Your task to perform on an android device: How big is a dinosaur? Image 0: 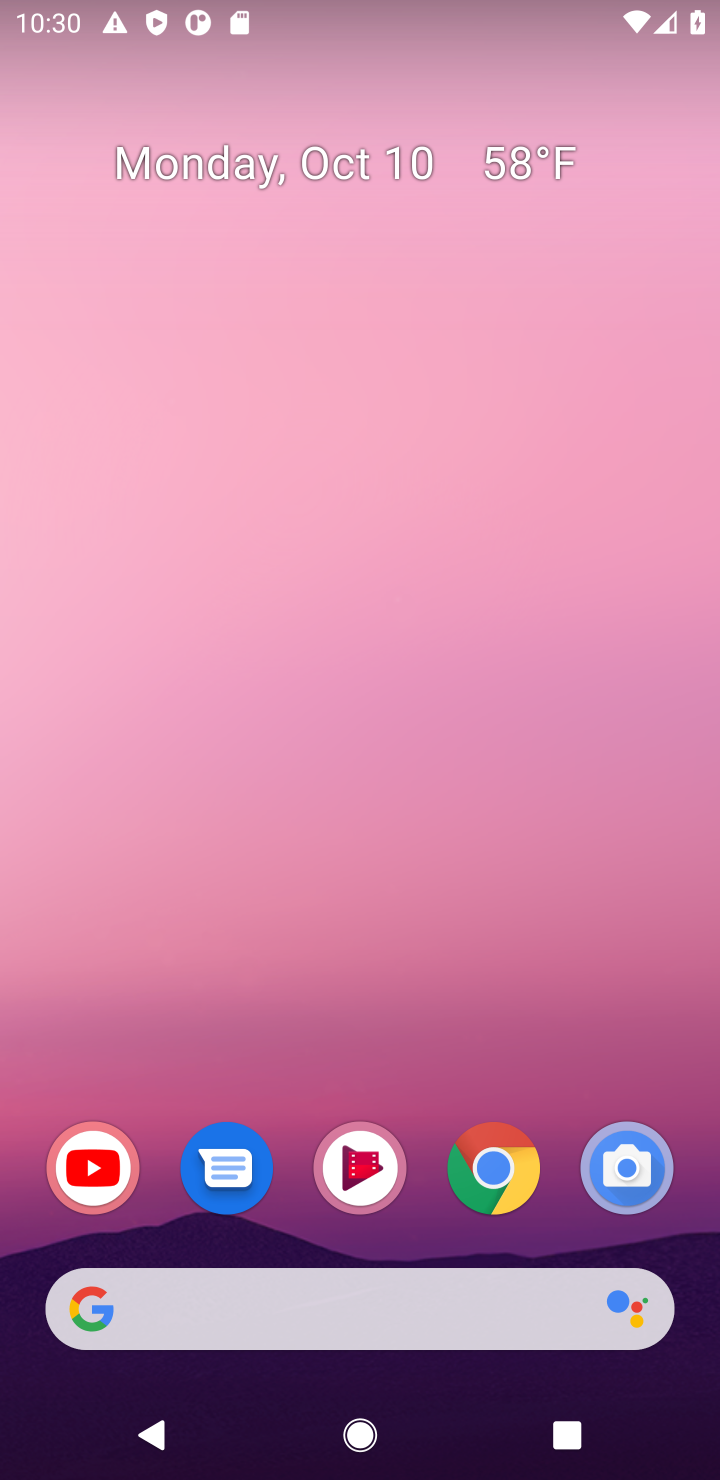
Step 0: click (450, 1300)
Your task to perform on an android device: How big is a dinosaur? Image 1: 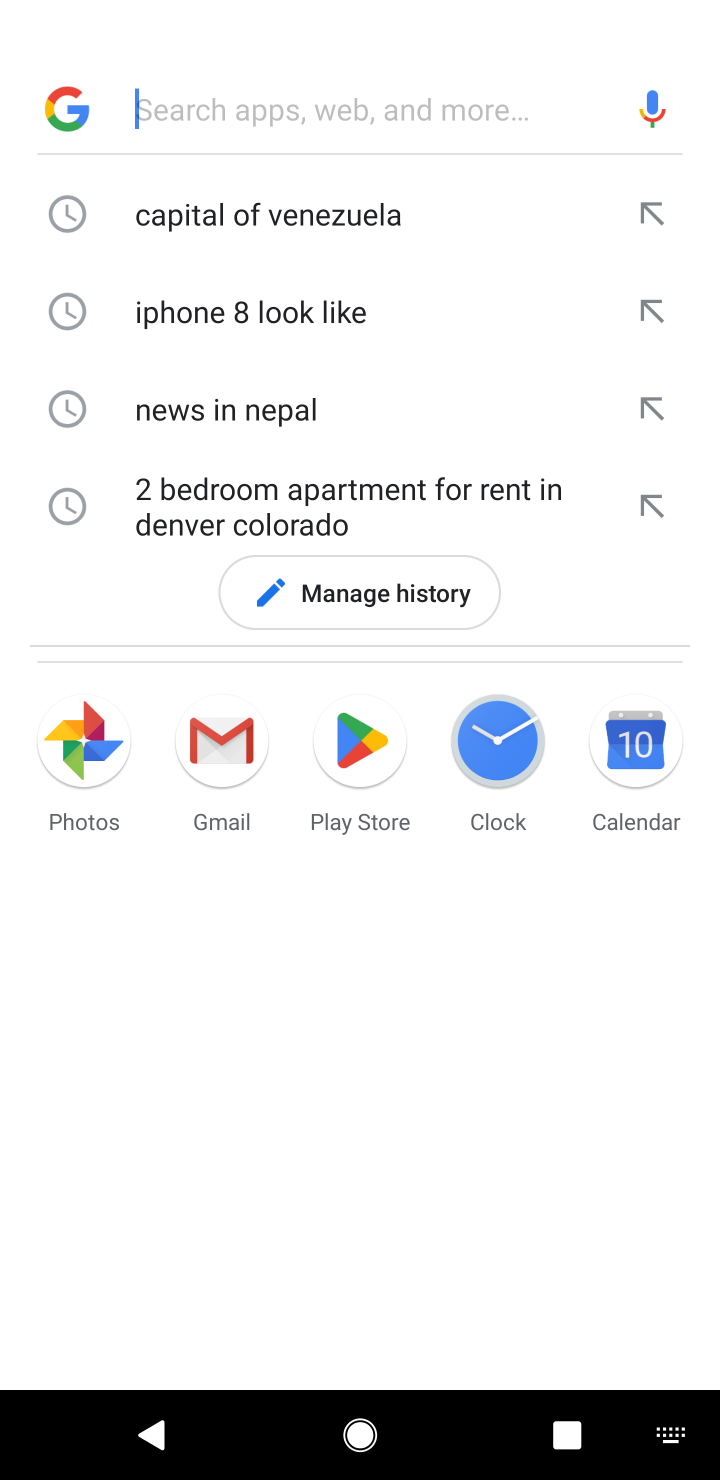
Step 1: type "How big is a dinosaur?"
Your task to perform on an android device: How big is a dinosaur? Image 2: 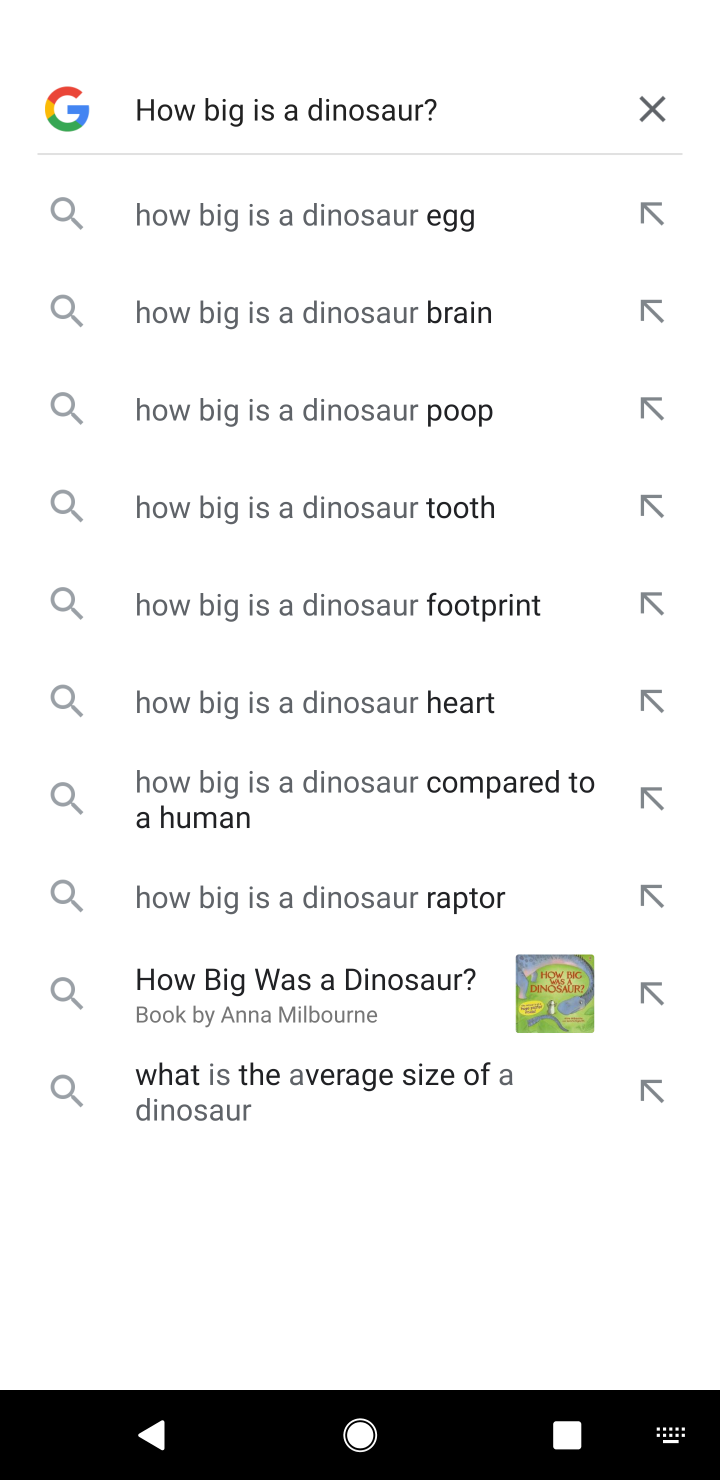
Step 2: type ""
Your task to perform on an android device: How big is a dinosaur? Image 3: 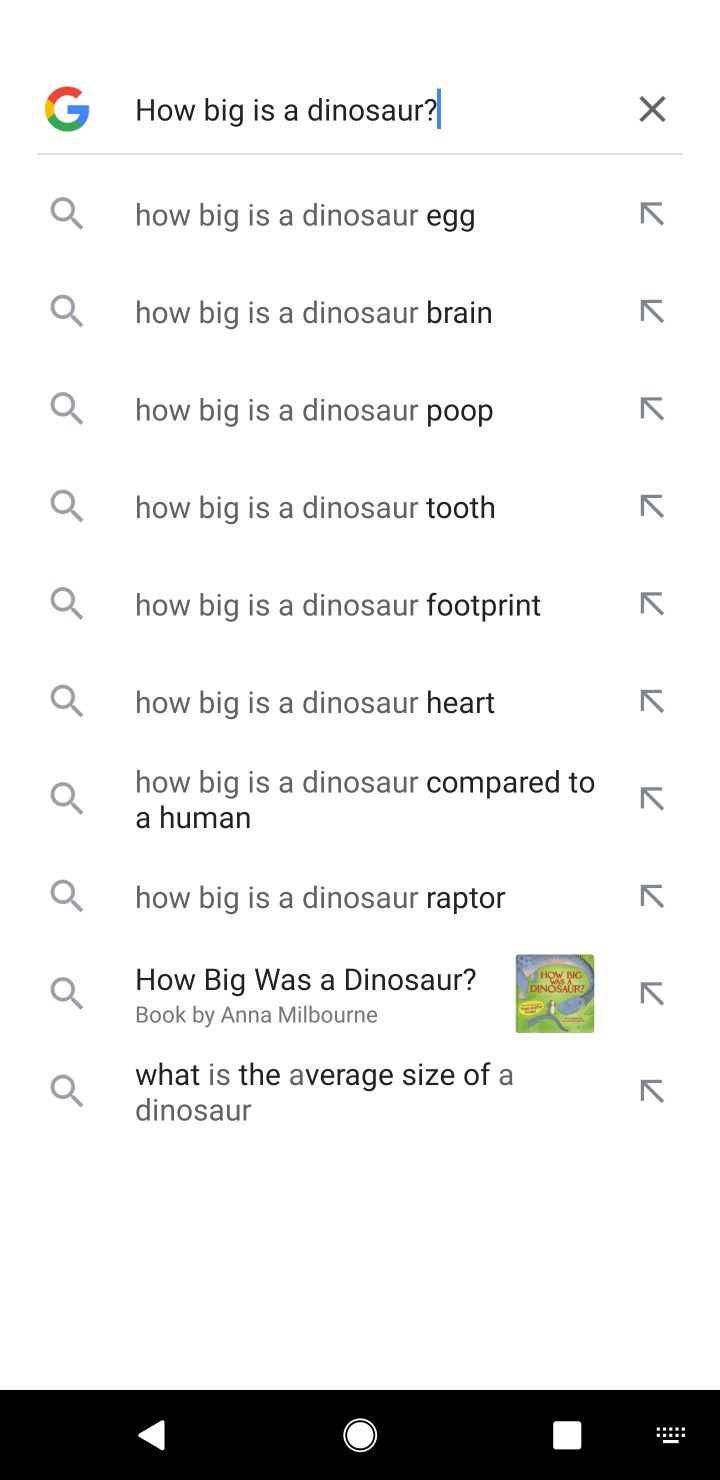
Step 3: click (426, 808)
Your task to perform on an android device: How big is a dinosaur? Image 4: 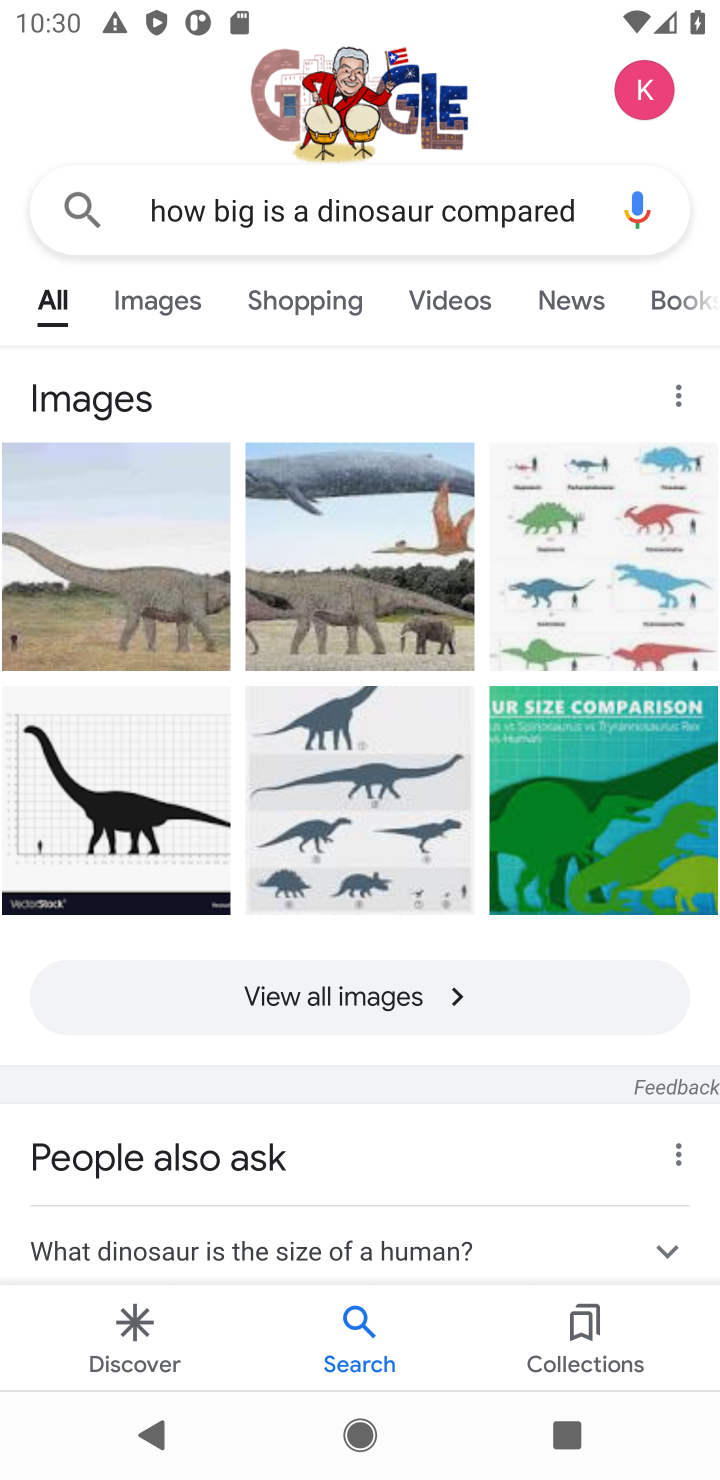
Step 4: task complete